Your task to perform on an android device: Search for pizza restaurants on Maps Image 0: 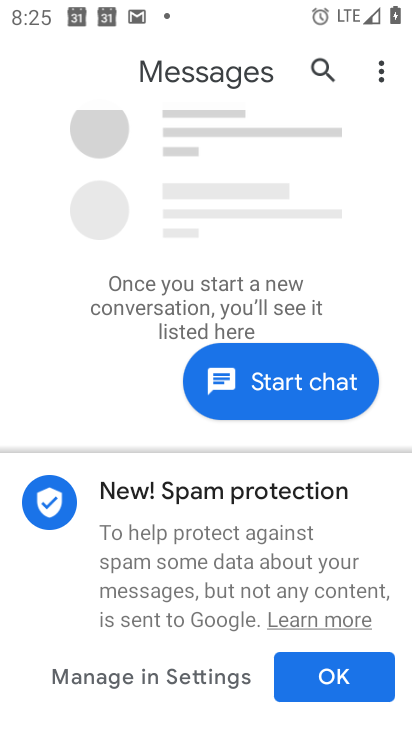
Step 0: press home button
Your task to perform on an android device: Search for pizza restaurants on Maps Image 1: 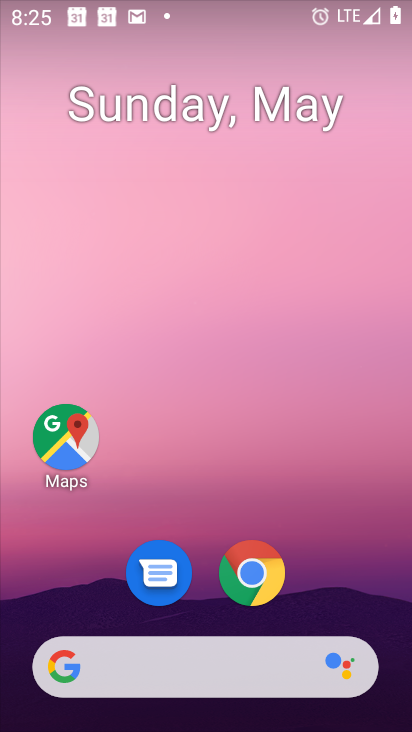
Step 1: click (51, 434)
Your task to perform on an android device: Search for pizza restaurants on Maps Image 2: 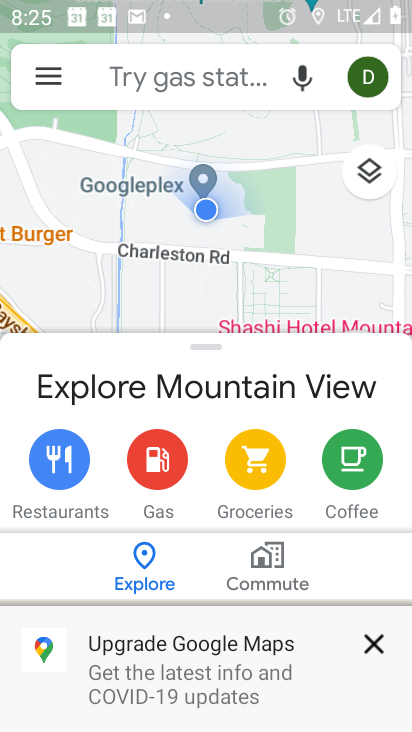
Step 2: click (193, 69)
Your task to perform on an android device: Search for pizza restaurants on Maps Image 3: 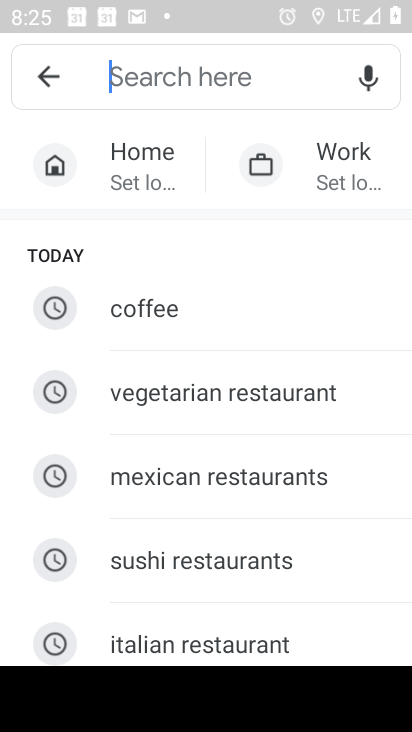
Step 3: drag from (221, 473) to (237, 157)
Your task to perform on an android device: Search for pizza restaurants on Maps Image 4: 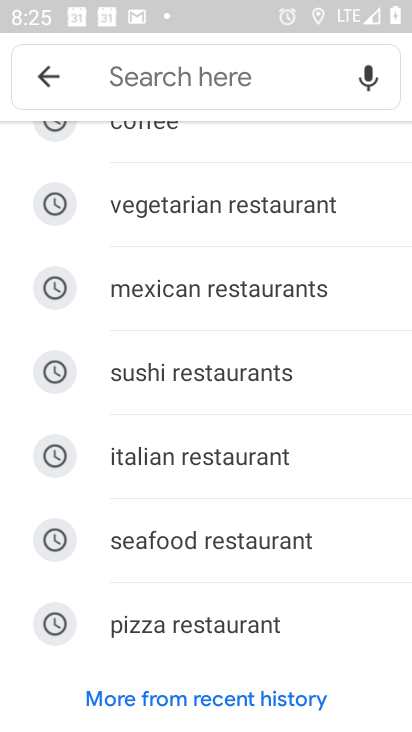
Step 4: click (242, 621)
Your task to perform on an android device: Search for pizza restaurants on Maps Image 5: 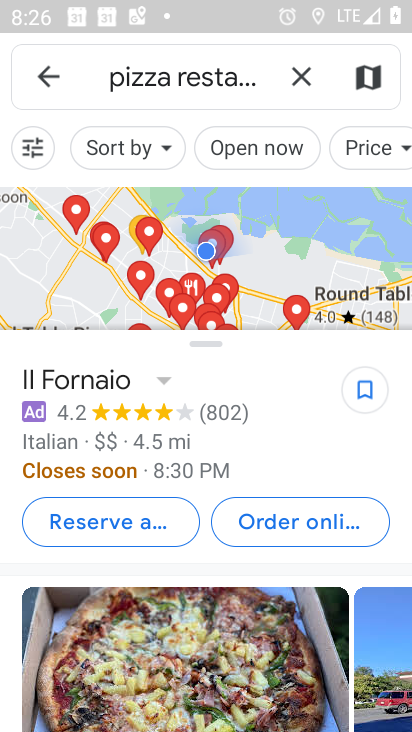
Step 5: task complete